Your task to perform on an android device: See recent photos Image 0: 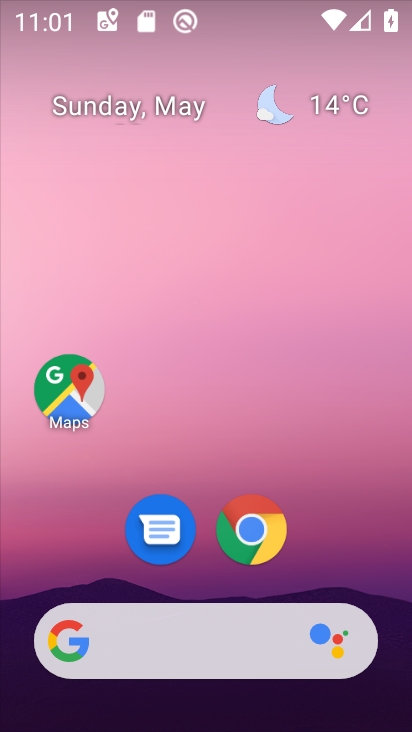
Step 0: drag from (176, 659) to (274, 8)
Your task to perform on an android device: See recent photos Image 1: 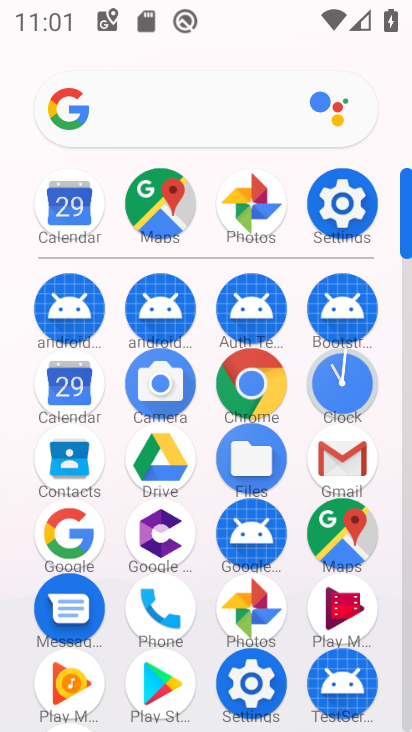
Step 1: click (259, 610)
Your task to perform on an android device: See recent photos Image 2: 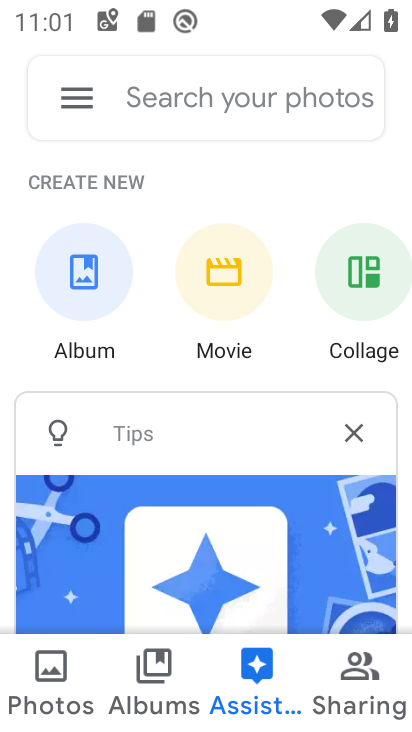
Step 2: click (26, 695)
Your task to perform on an android device: See recent photos Image 3: 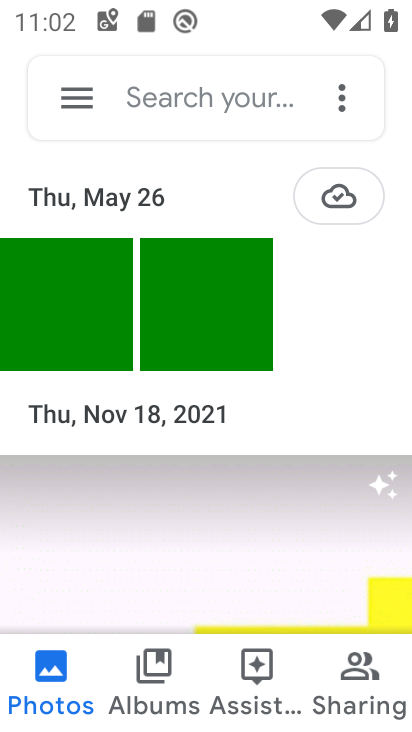
Step 3: task complete